Your task to perform on an android device: Add "logitech g pro" to the cart on costco.com, then select checkout. Image 0: 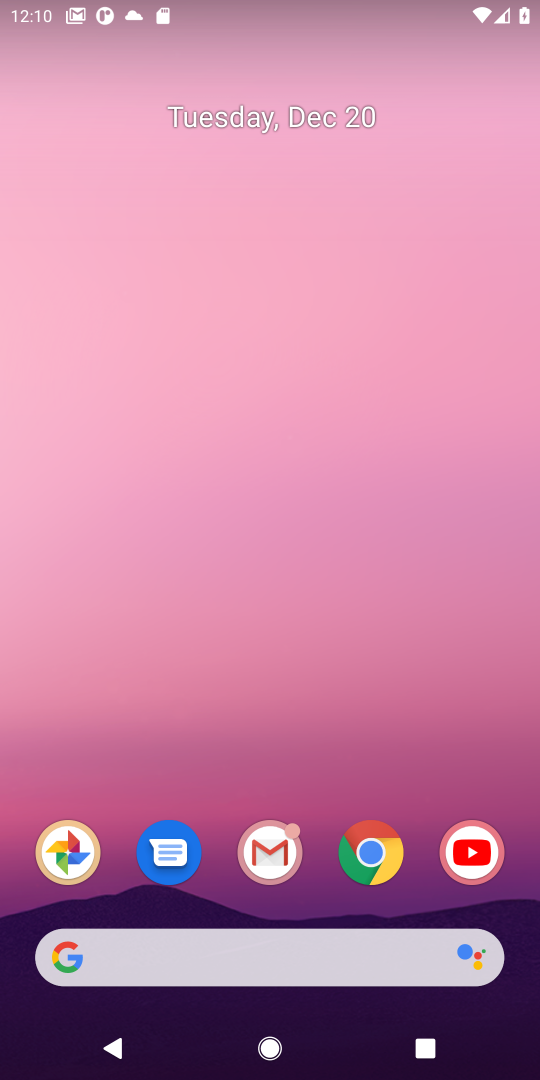
Step 0: click (372, 857)
Your task to perform on an android device: Add "logitech g pro" to the cart on costco.com, then select checkout. Image 1: 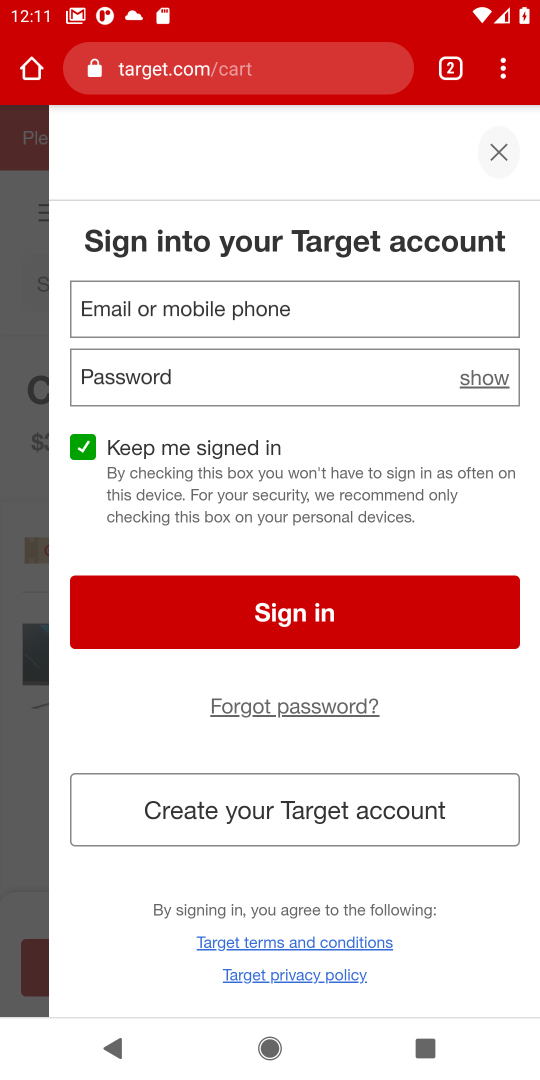
Step 1: click (219, 60)
Your task to perform on an android device: Add "logitech g pro" to the cart on costco.com, then select checkout. Image 2: 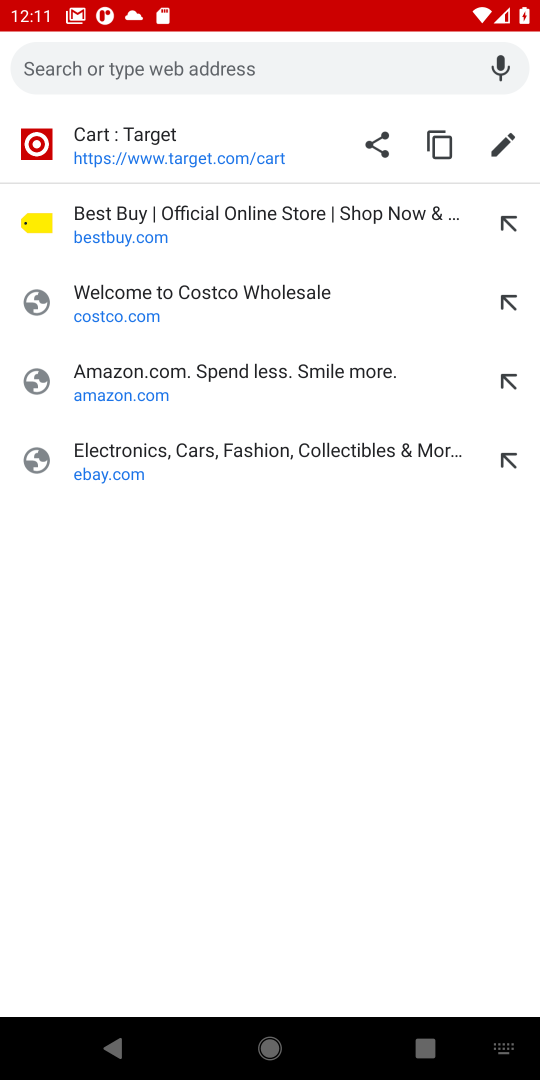
Step 2: click (108, 315)
Your task to perform on an android device: Add "logitech g pro" to the cart on costco.com, then select checkout. Image 3: 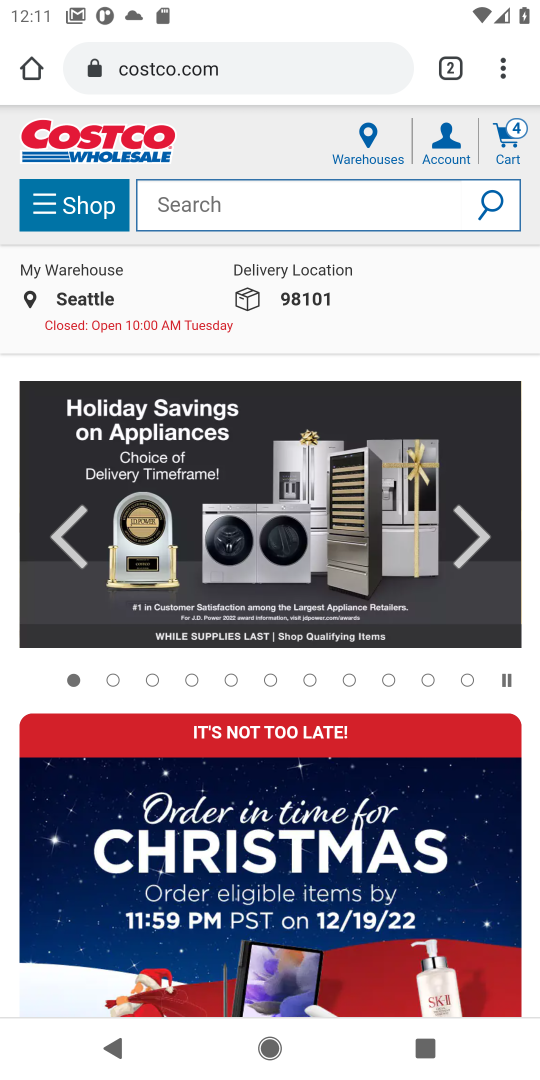
Step 3: click (184, 214)
Your task to perform on an android device: Add "logitech g pro" to the cart on costco.com, then select checkout. Image 4: 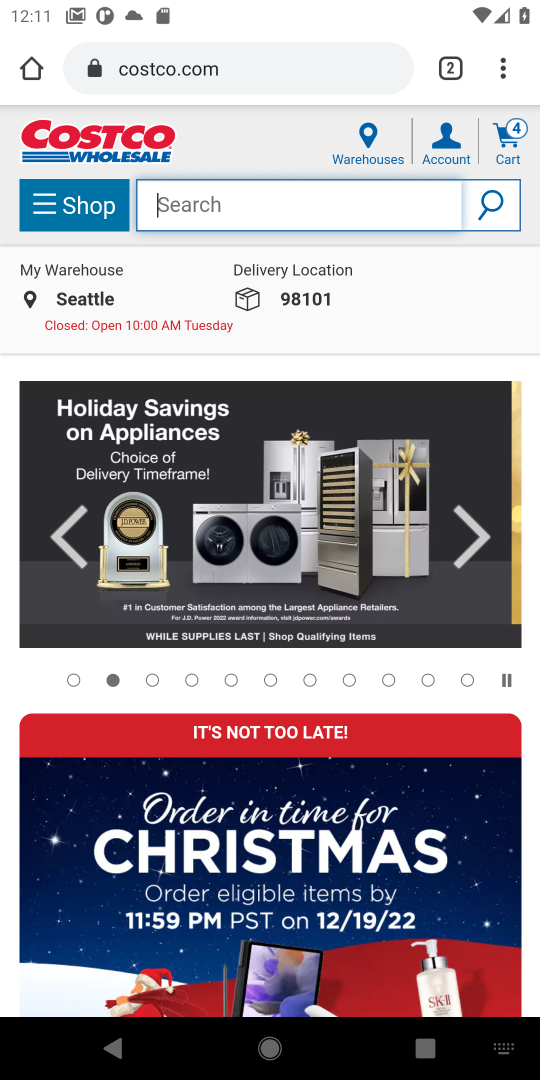
Step 4: type "logitech g pro"
Your task to perform on an android device: Add "logitech g pro" to the cart on costco.com, then select checkout. Image 5: 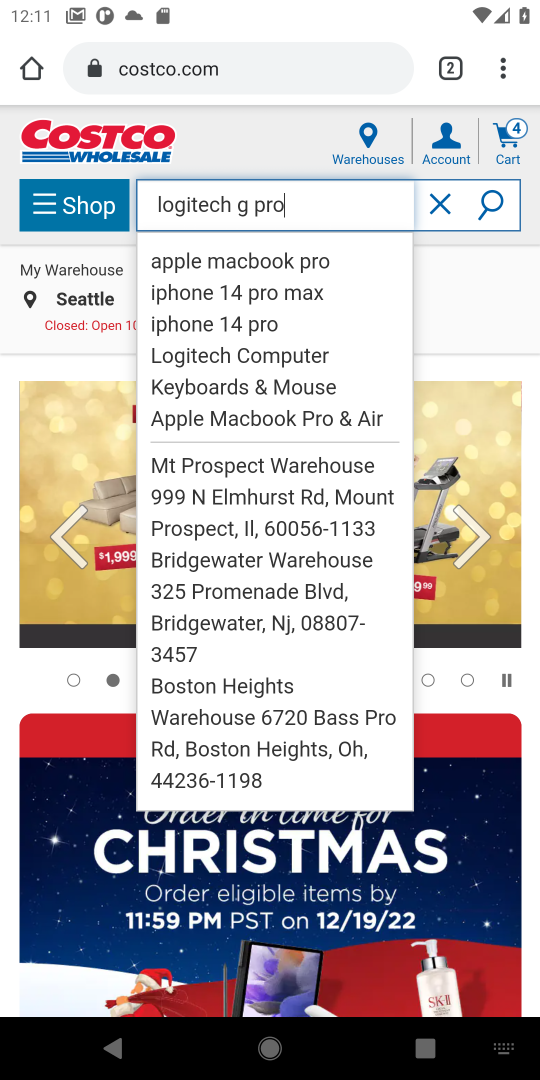
Step 5: click (494, 206)
Your task to perform on an android device: Add "logitech g pro" to the cart on costco.com, then select checkout. Image 6: 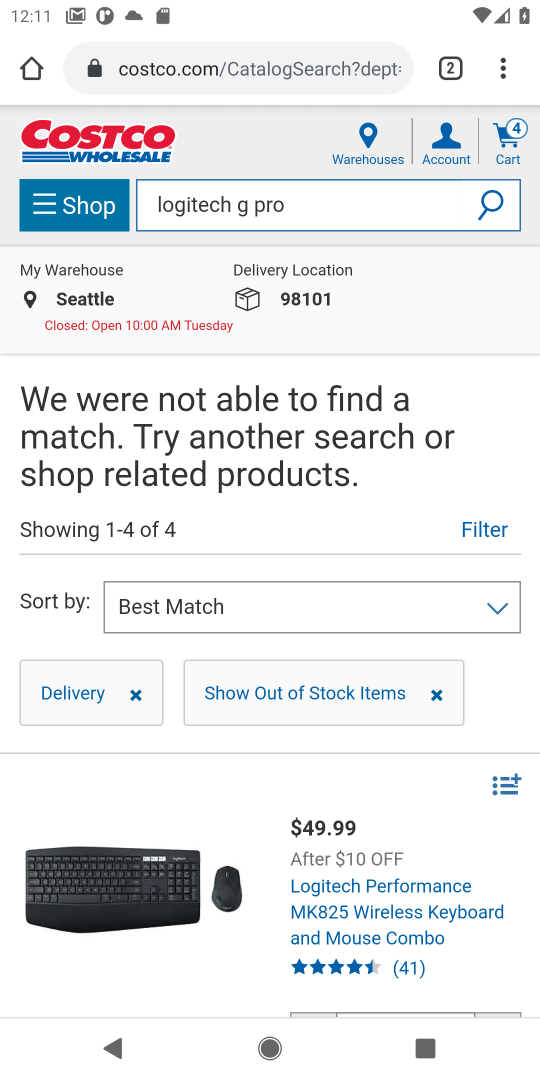
Step 6: task complete